Your task to perform on an android device: View the shopping cart on target.com. Add "macbook" to the cart on target.com Image 0: 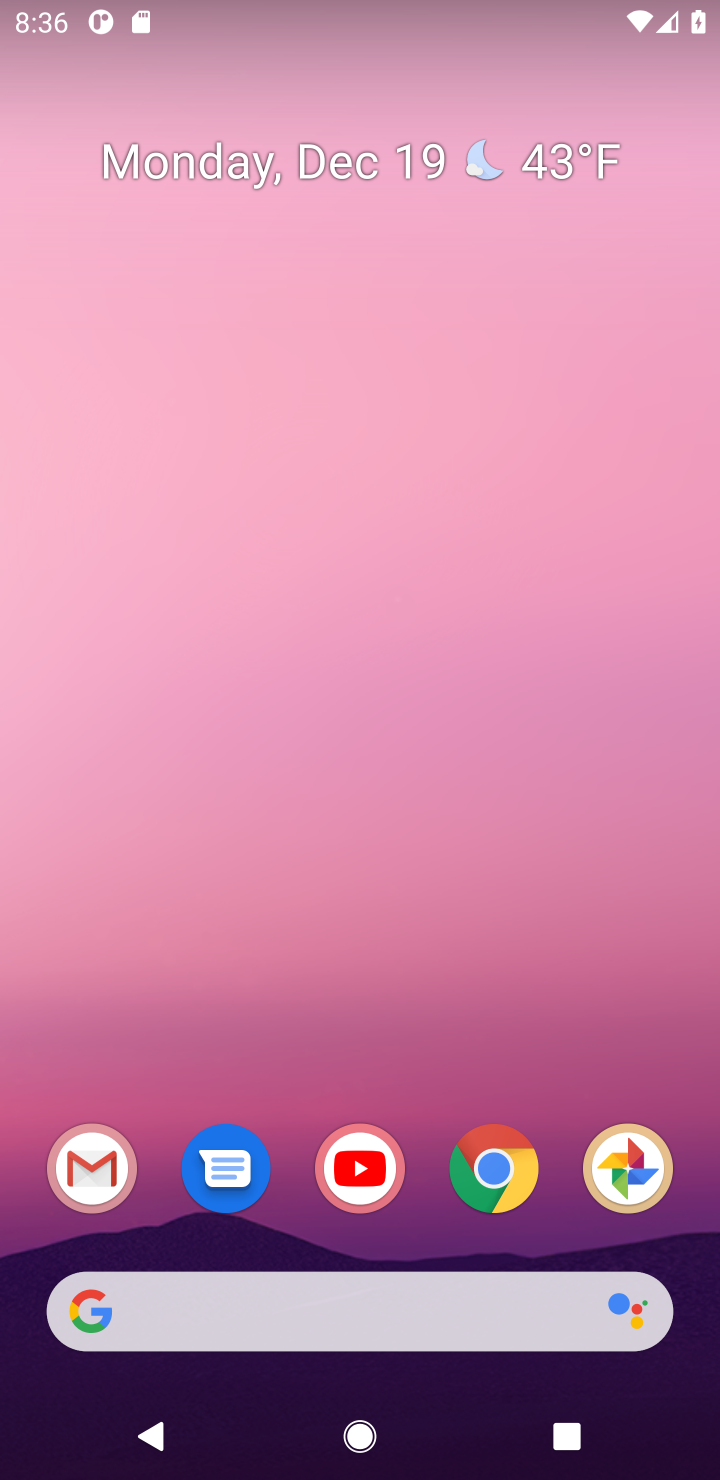
Step 0: click (503, 1171)
Your task to perform on an android device: View the shopping cart on target.com. Add "macbook" to the cart on target.com Image 1: 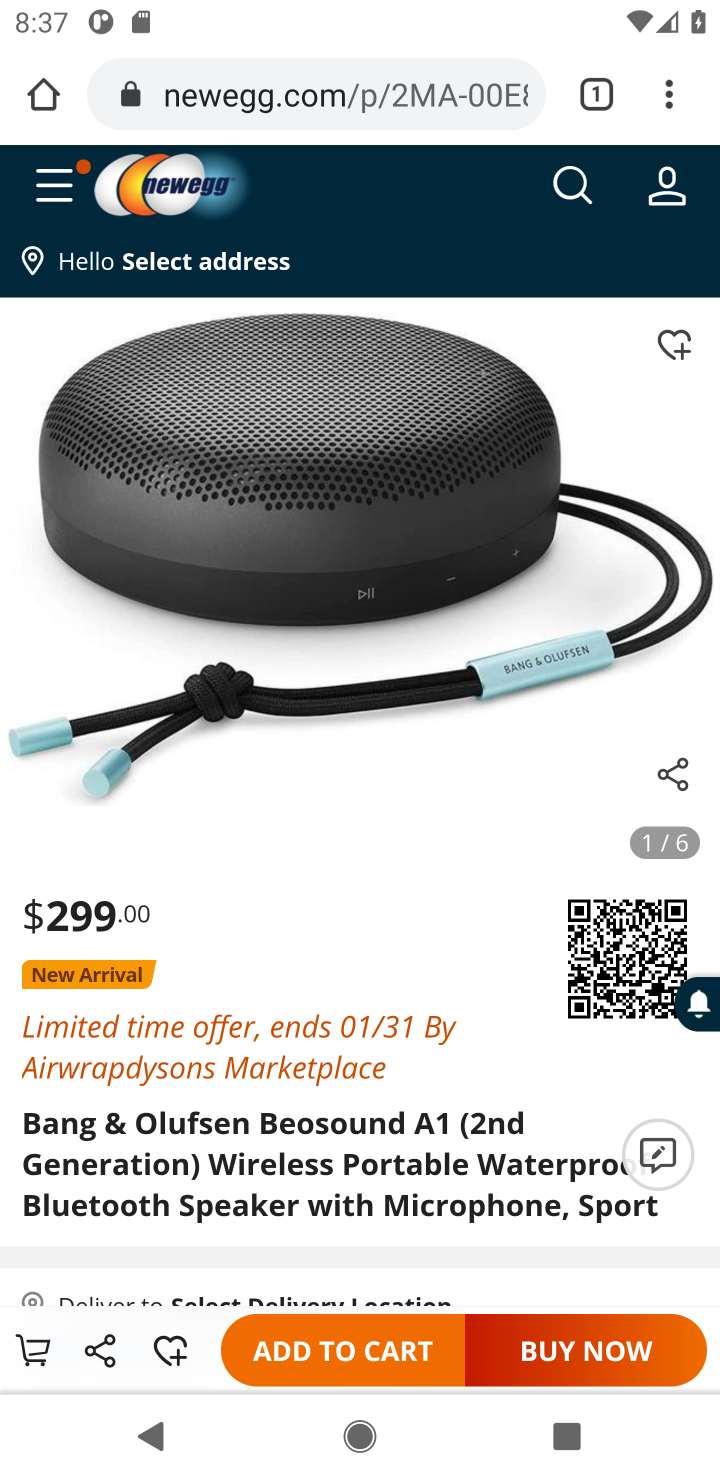
Step 1: click (249, 94)
Your task to perform on an android device: View the shopping cart on target.com. Add "macbook" to the cart on target.com Image 2: 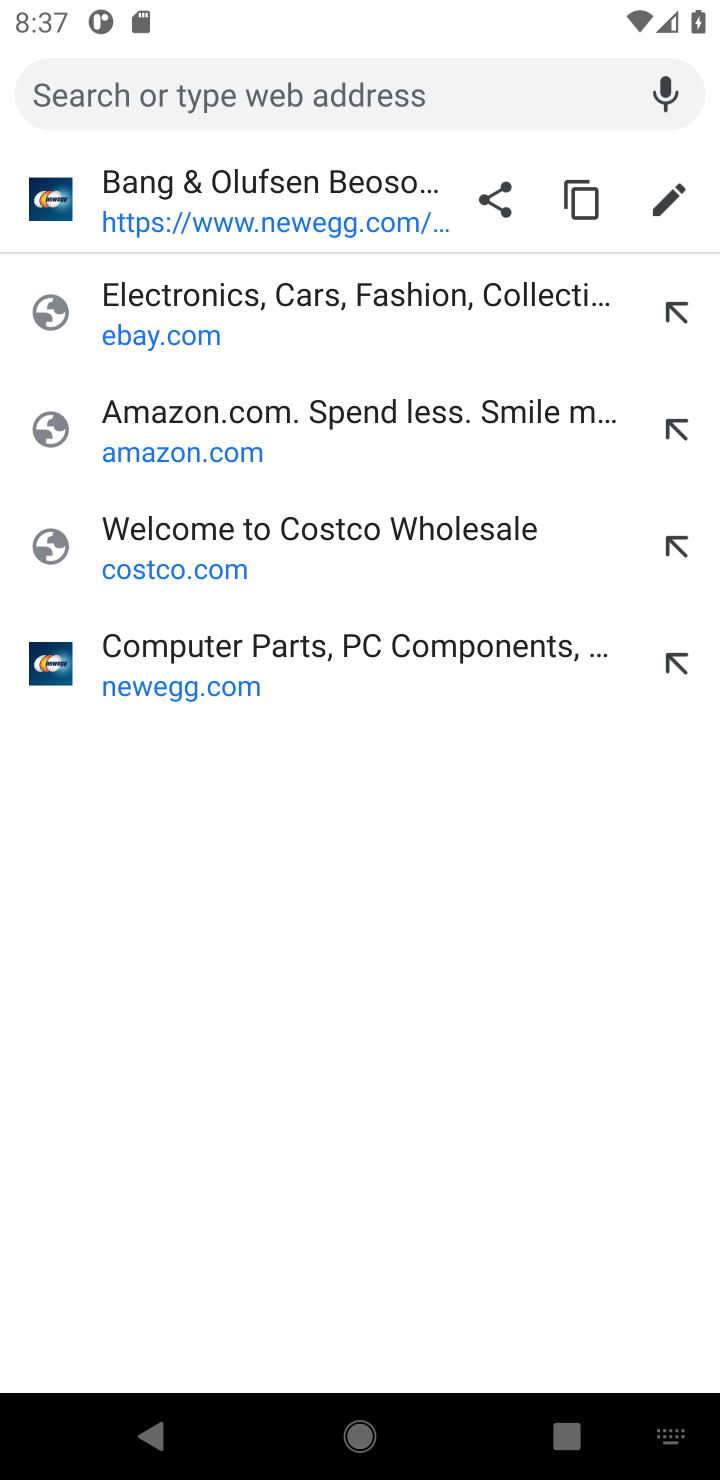
Step 2: type "target.com"
Your task to perform on an android device: View the shopping cart on target.com. Add "macbook" to the cart on target.com Image 3: 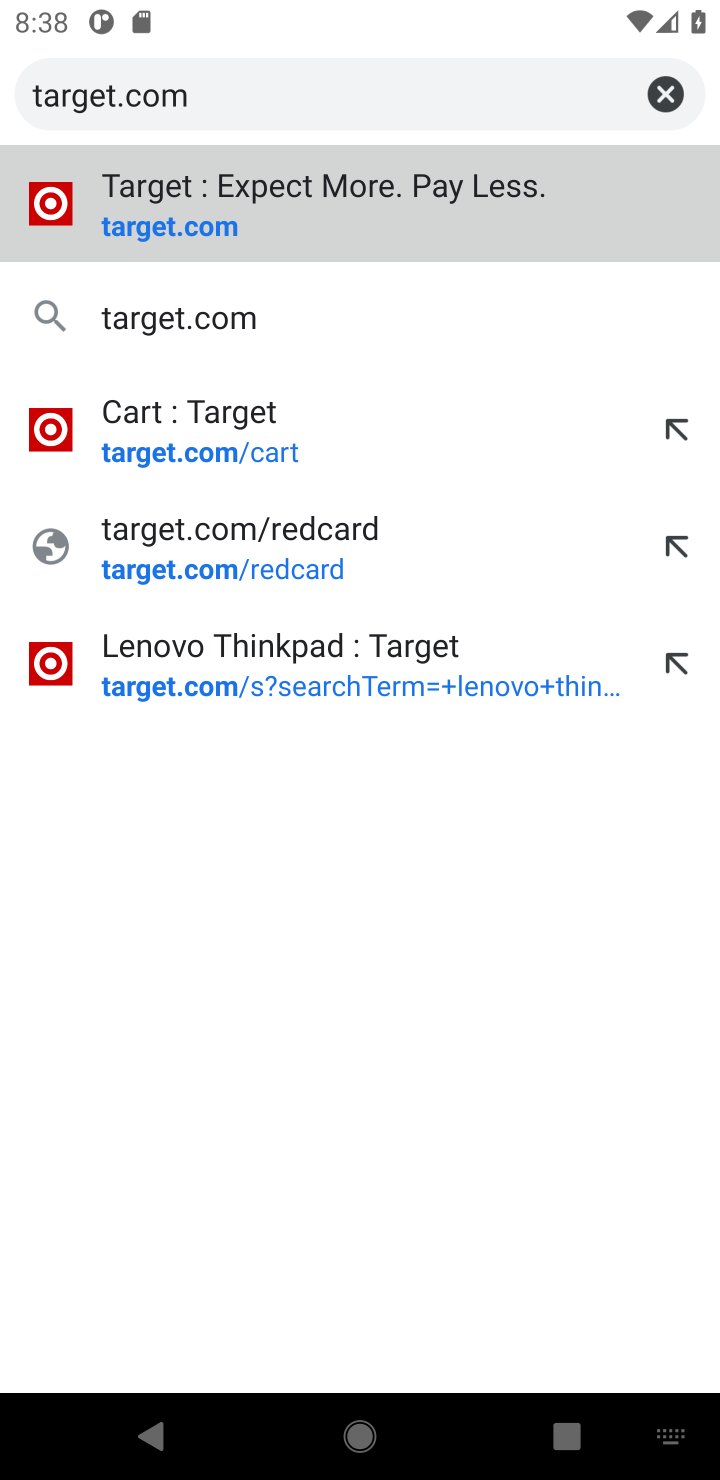
Step 3: click (162, 232)
Your task to perform on an android device: View the shopping cart on target.com. Add "macbook" to the cart on target.com Image 4: 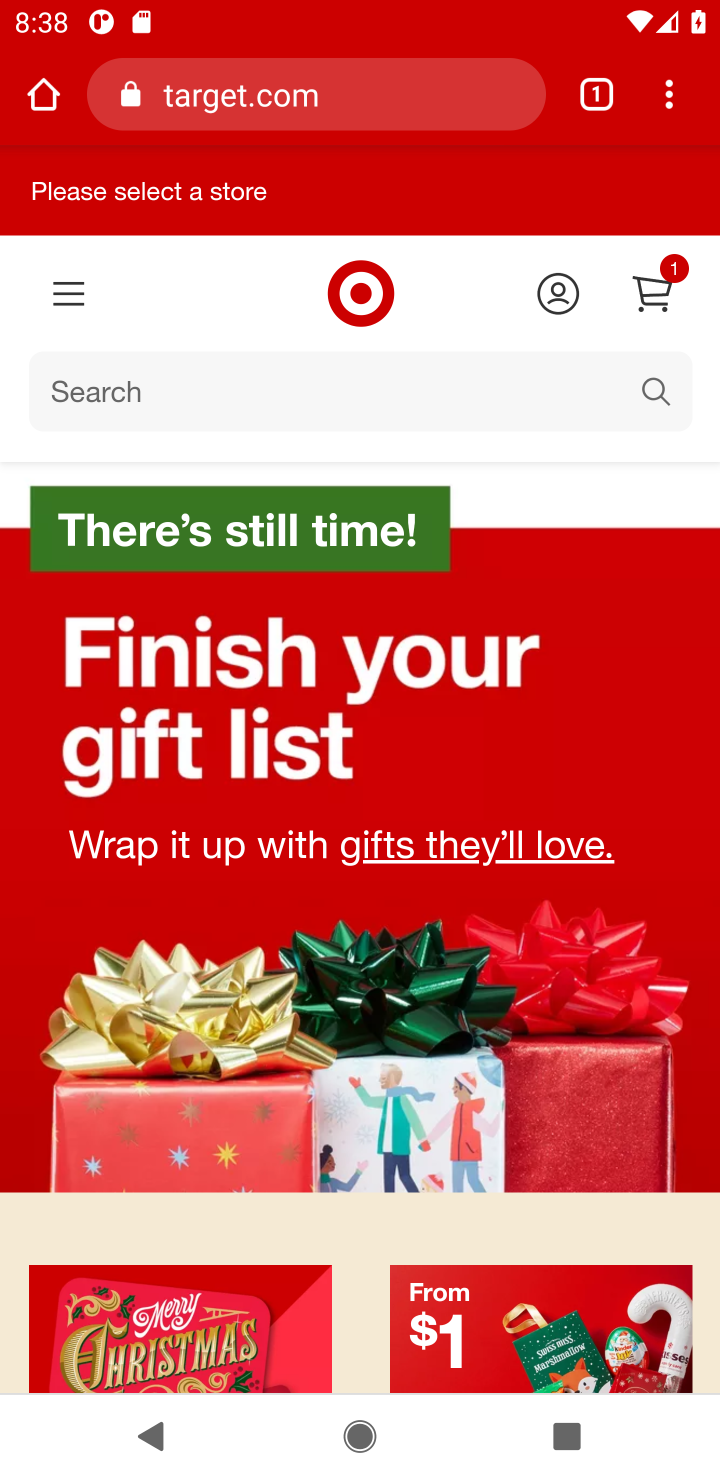
Step 4: click (665, 293)
Your task to perform on an android device: View the shopping cart on target.com. Add "macbook" to the cart on target.com Image 5: 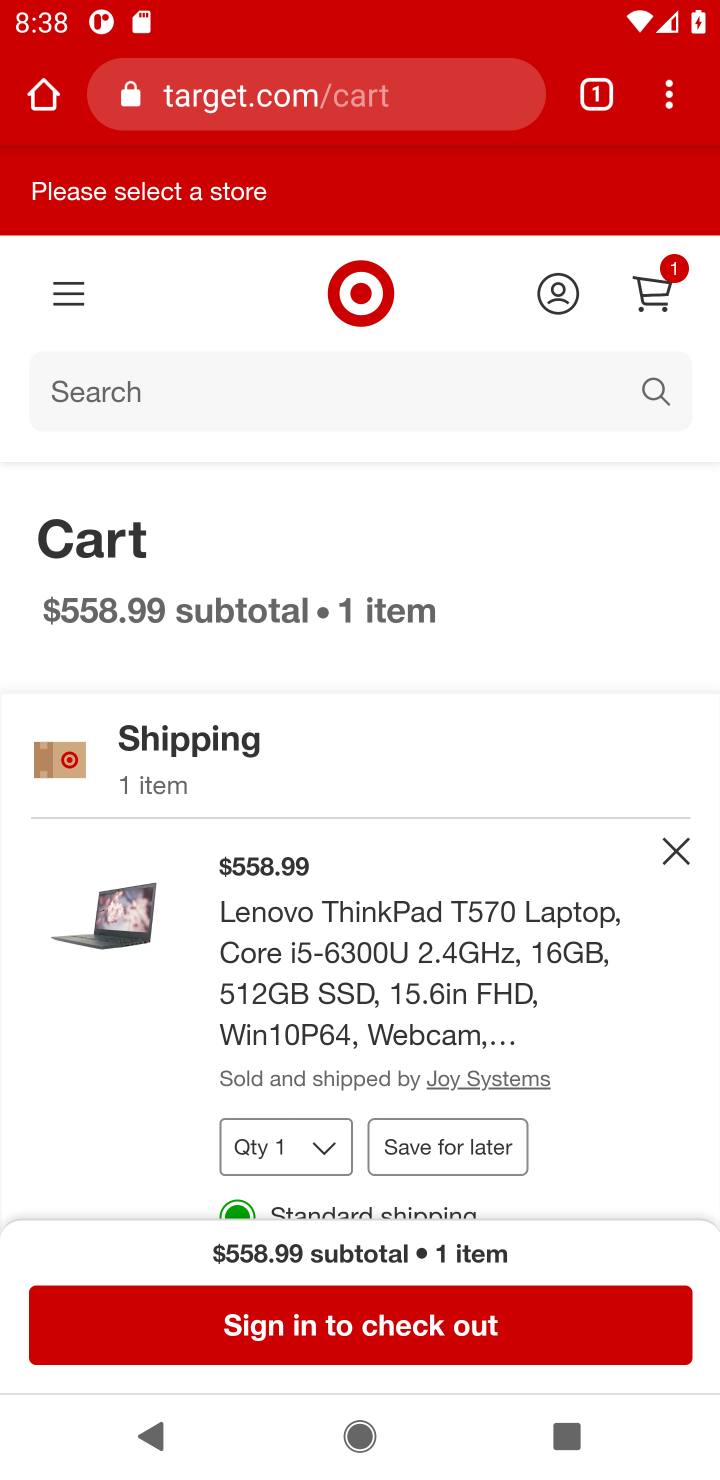
Step 5: click (132, 396)
Your task to perform on an android device: View the shopping cart on target.com. Add "macbook" to the cart on target.com Image 6: 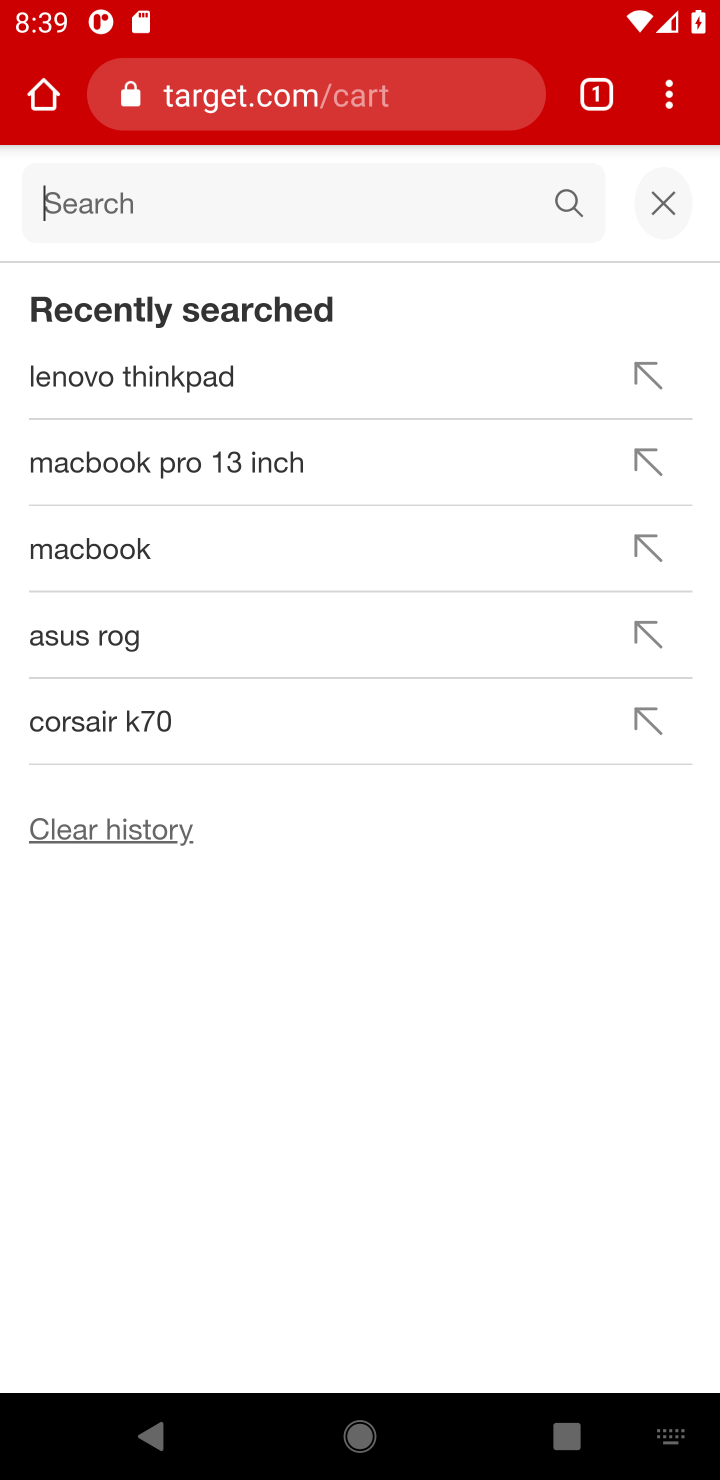
Step 6: type "macbook"
Your task to perform on an android device: View the shopping cart on target.com. Add "macbook" to the cart on target.com Image 7: 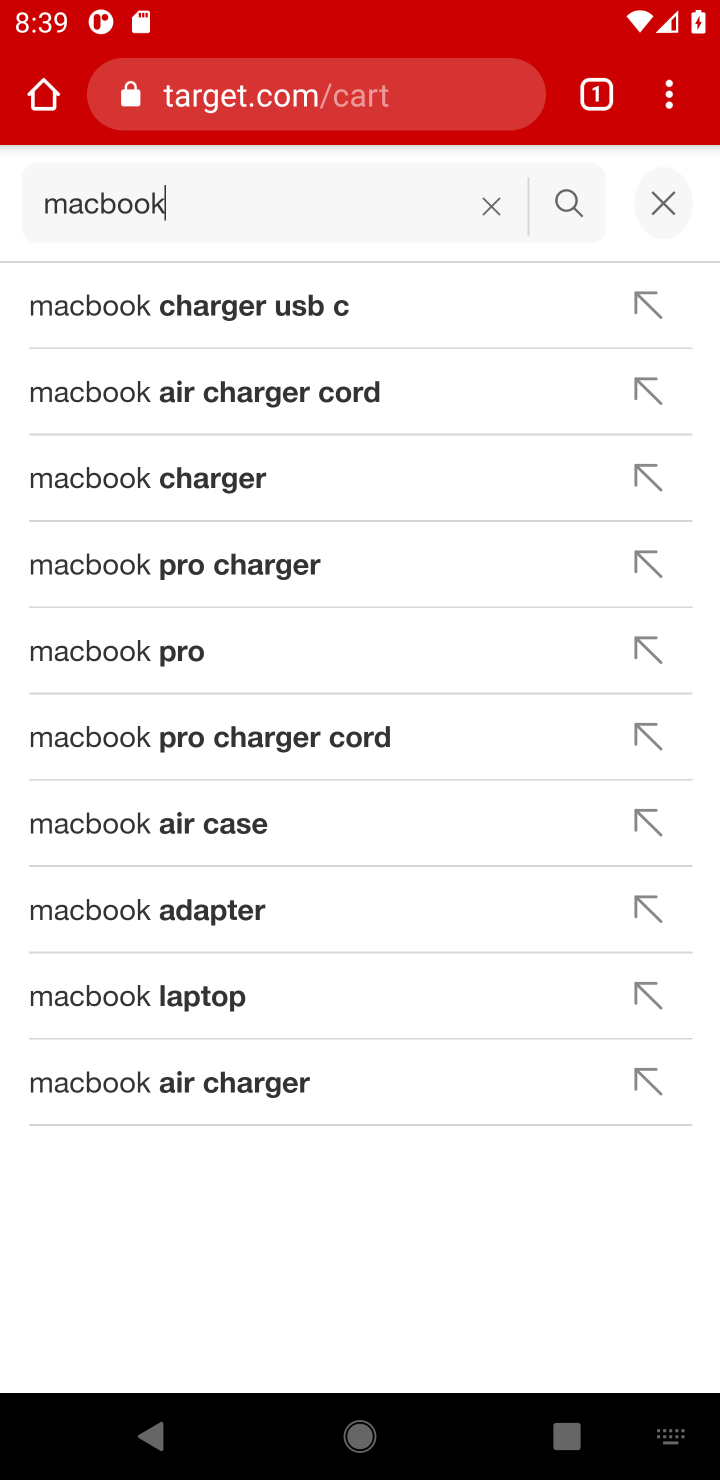
Step 7: click (557, 210)
Your task to perform on an android device: View the shopping cart on target.com. Add "macbook" to the cart on target.com Image 8: 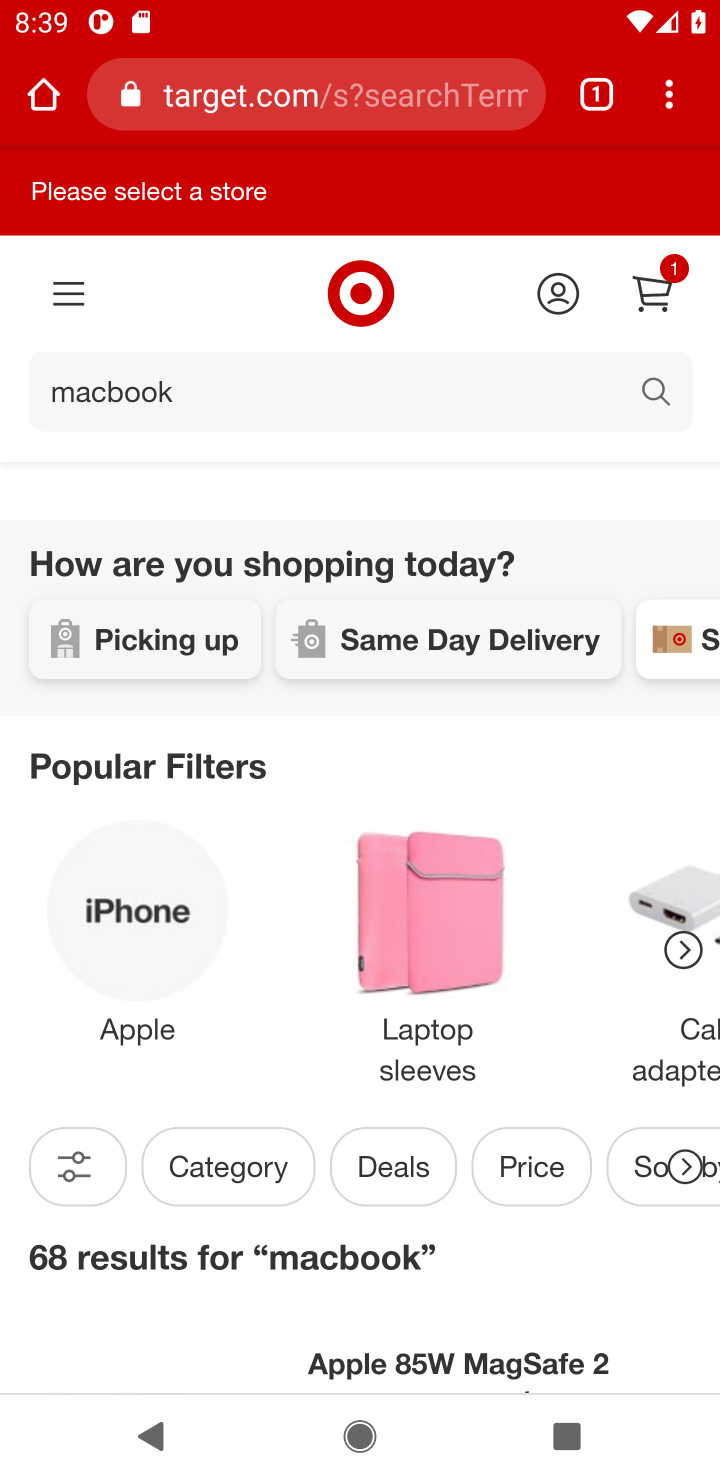
Step 8: drag from (257, 939) to (185, 399)
Your task to perform on an android device: View the shopping cart on target.com. Add "macbook" to the cart on target.com Image 9: 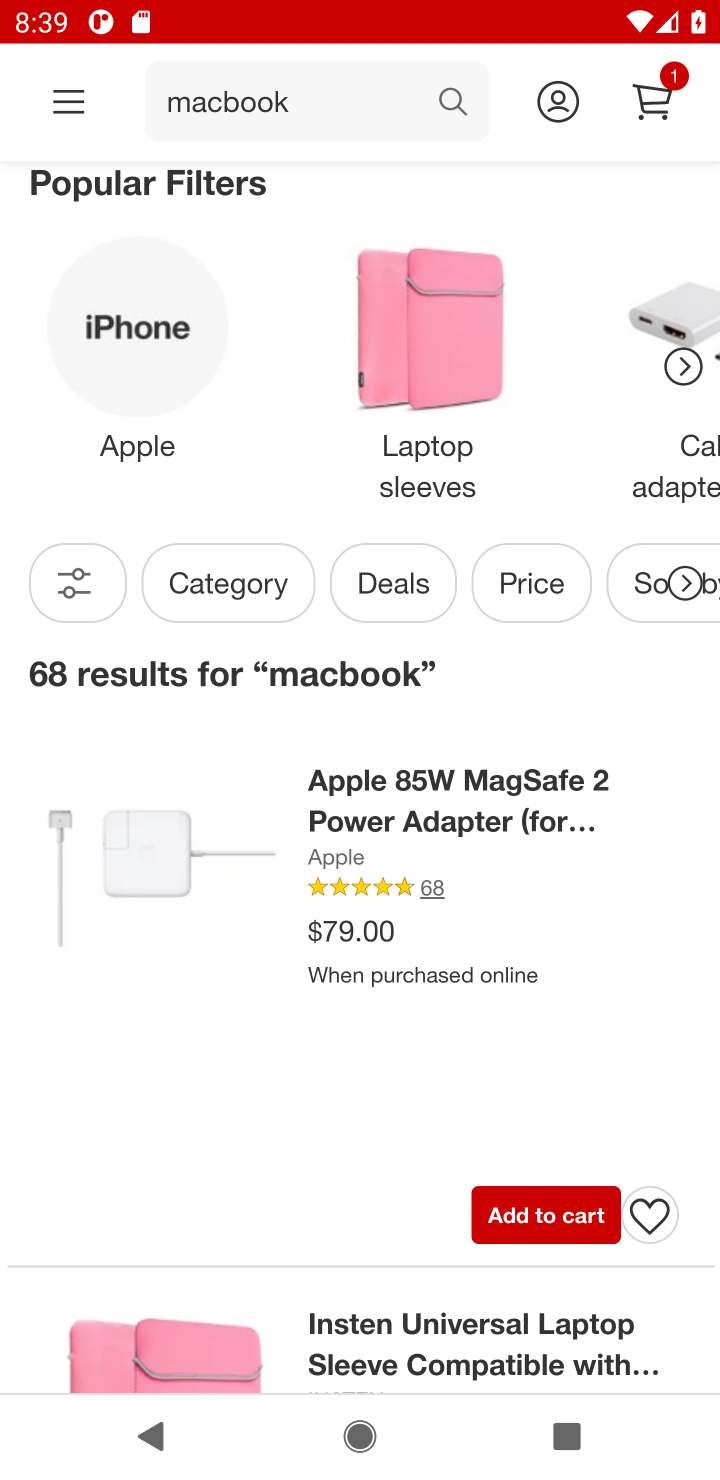
Step 9: drag from (344, 901) to (357, 718)
Your task to perform on an android device: View the shopping cart on target.com. Add "macbook" to the cart on target.com Image 10: 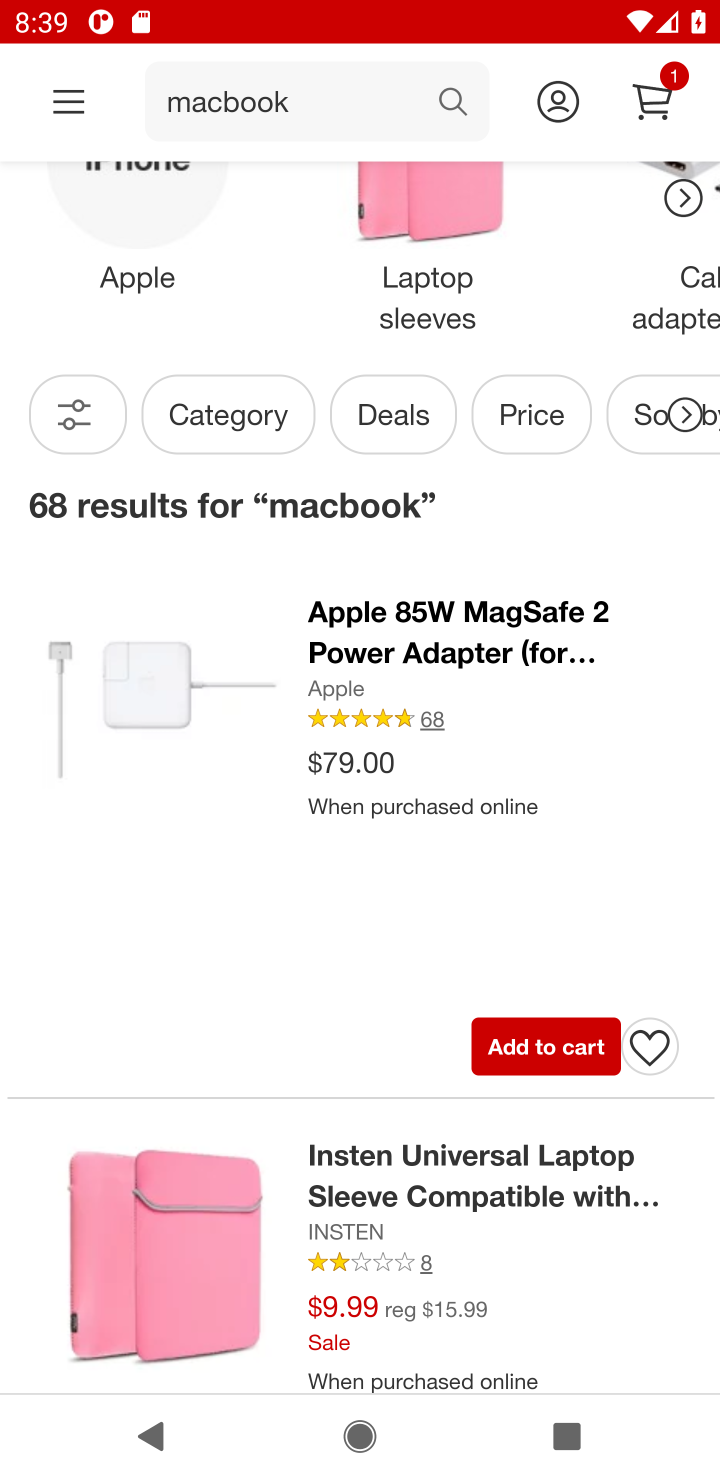
Step 10: drag from (242, 945) to (297, 504)
Your task to perform on an android device: View the shopping cart on target.com. Add "macbook" to the cart on target.com Image 11: 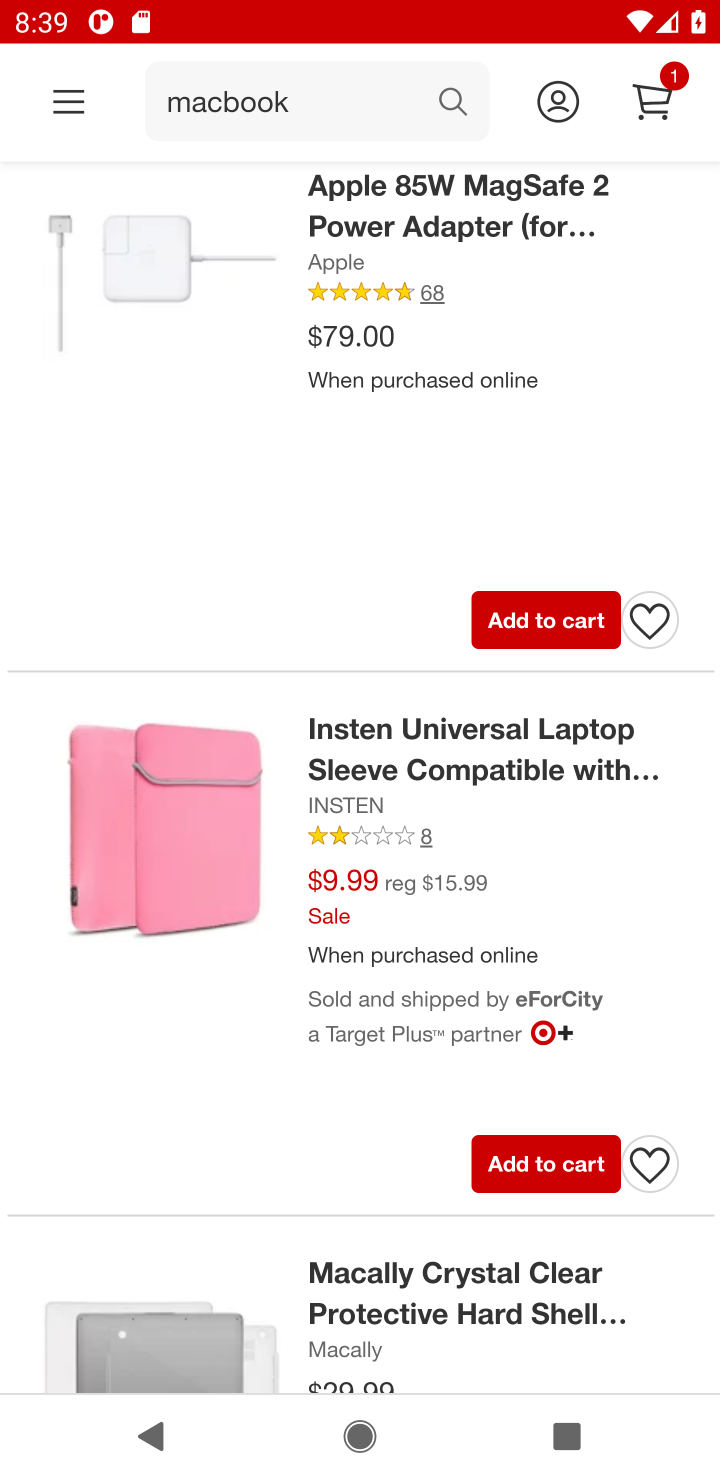
Step 11: drag from (421, 335) to (392, 564)
Your task to perform on an android device: View the shopping cart on target.com. Add "macbook" to the cart on target.com Image 12: 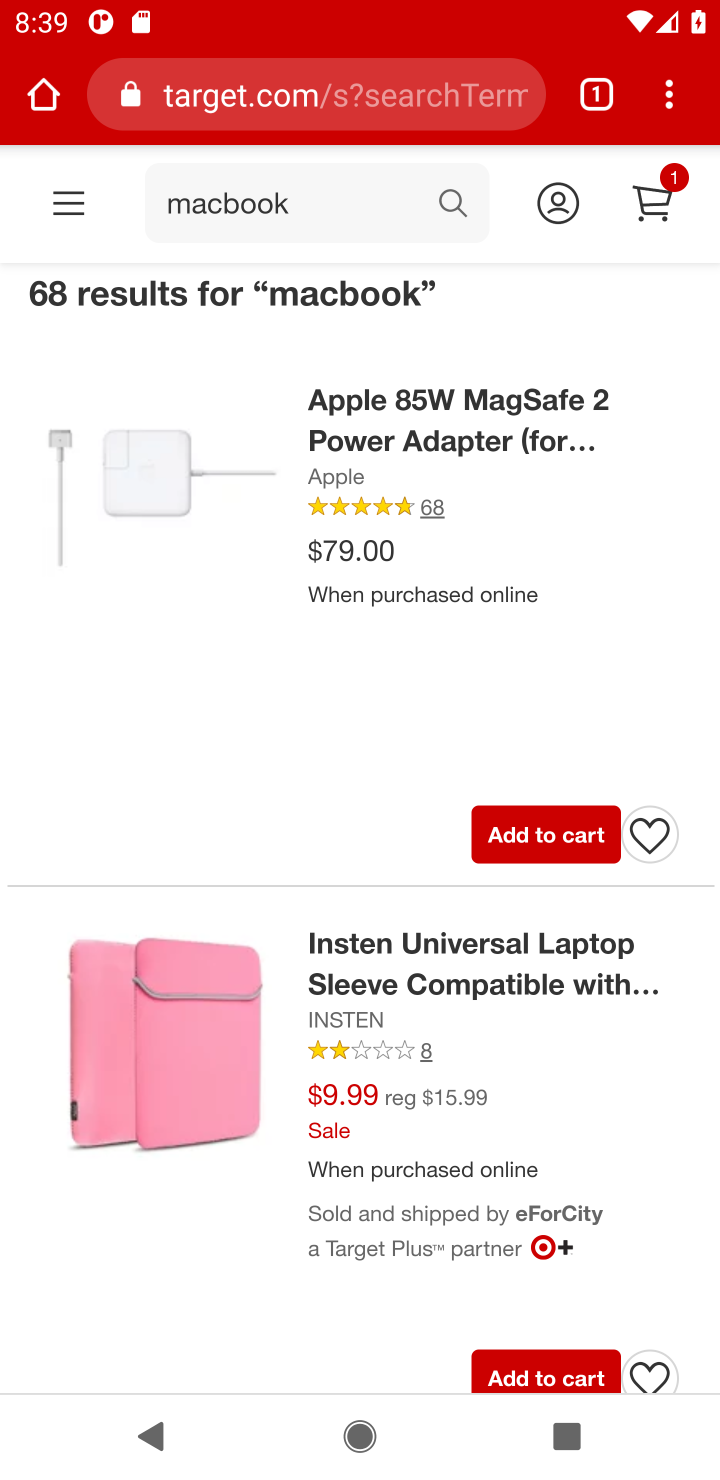
Step 12: click (427, 455)
Your task to perform on an android device: View the shopping cart on target.com. Add "macbook" to the cart on target.com Image 13: 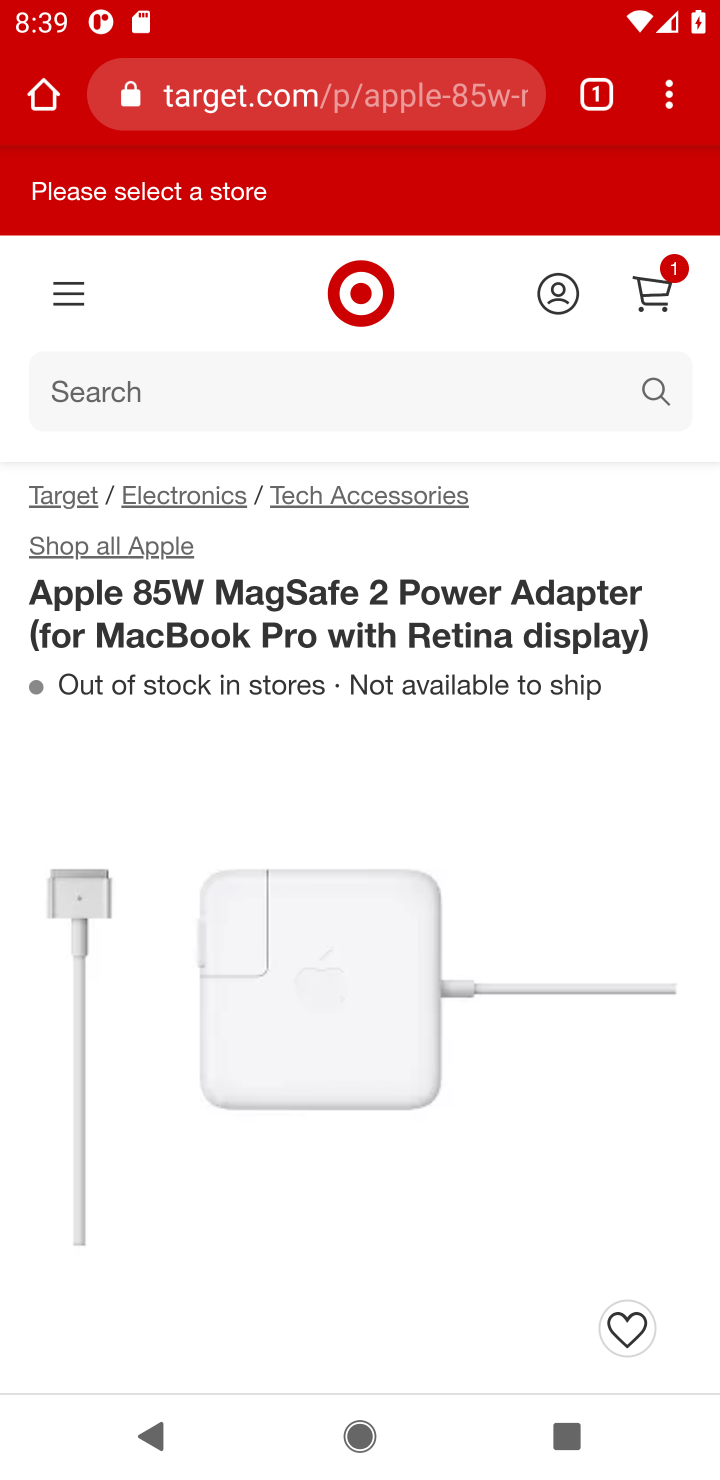
Step 13: drag from (446, 1184) to (437, 500)
Your task to perform on an android device: View the shopping cart on target.com. Add "macbook" to the cart on target.com Image 14: 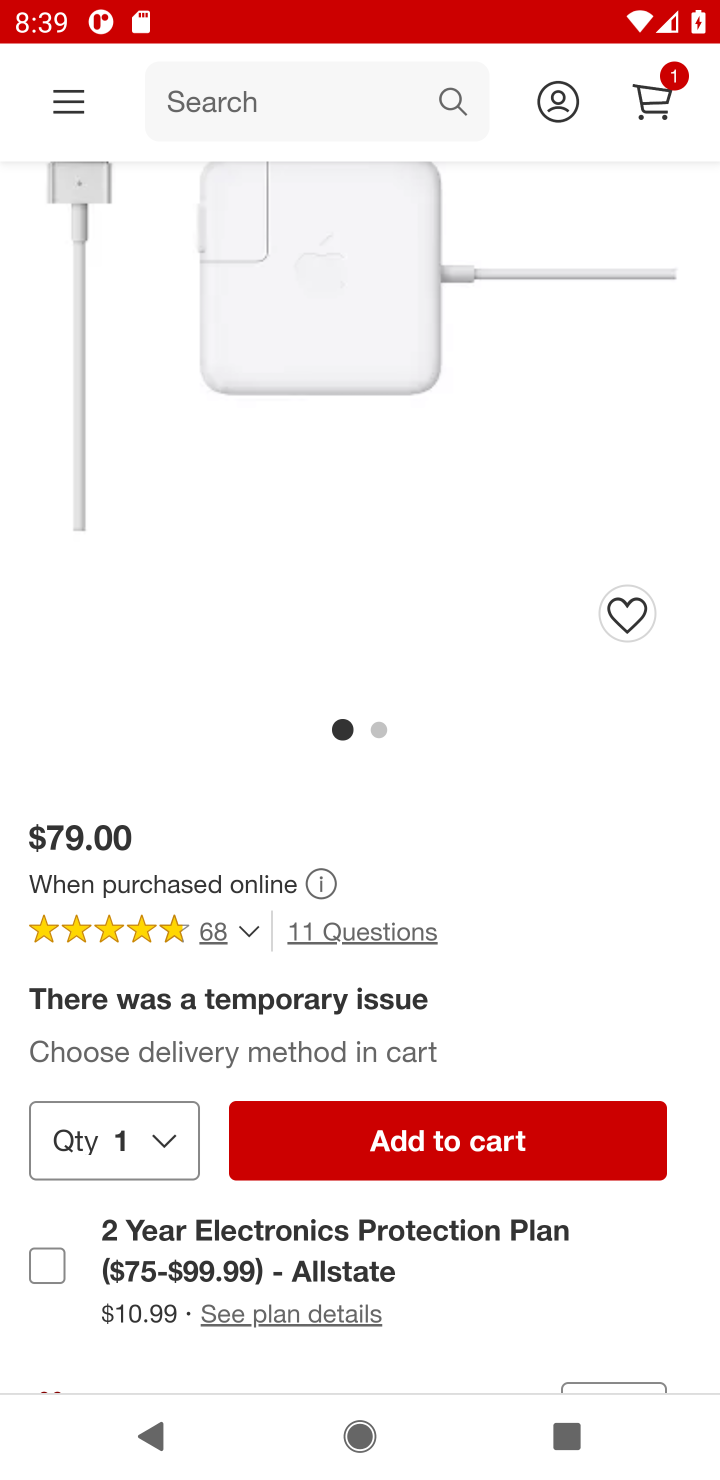
Step 14: click (440, 1138)
Your task to perform on an android device: View the shopping cart on target.com. Add "macbook" to the cart on target.com Image 15: 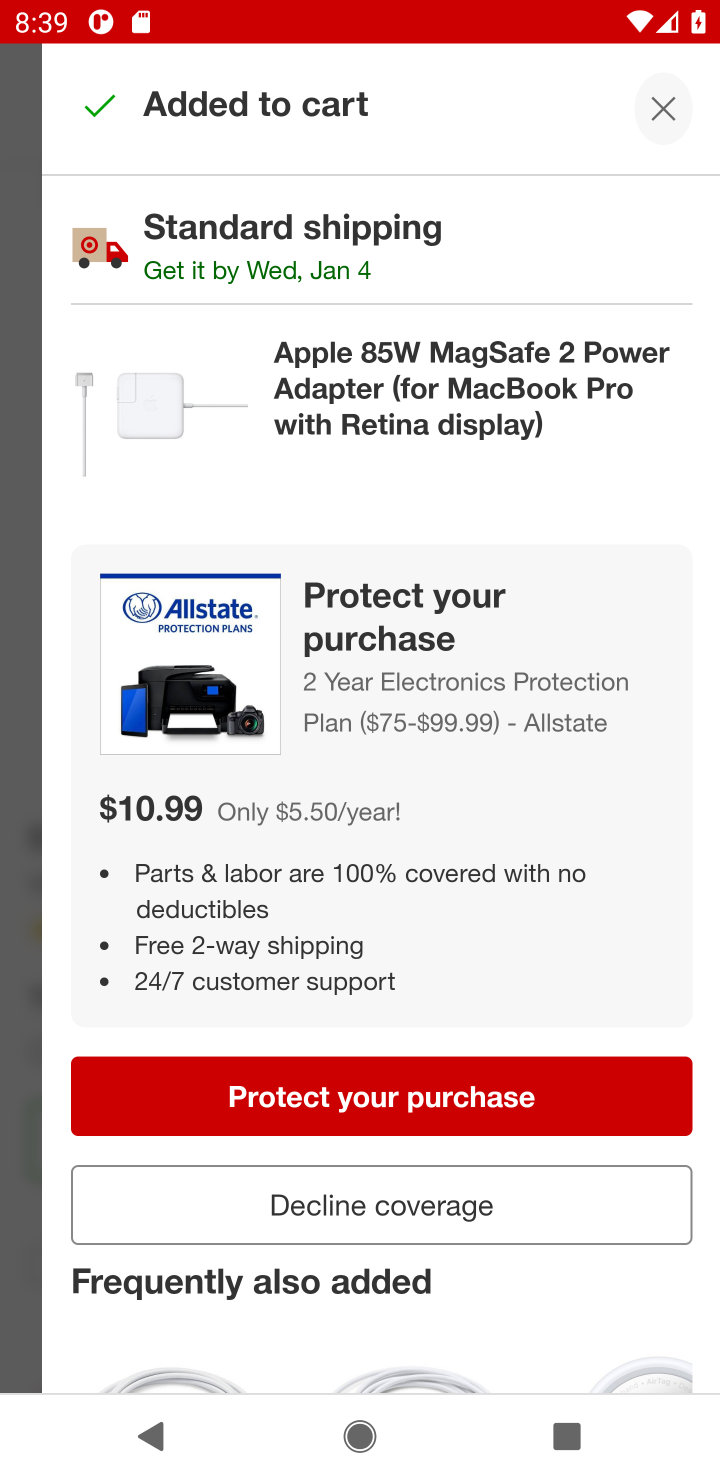
Step 15: task complete